Your task to perform on an android device: Empty the shopping cart on bestbuy.com. Add rayovac triple a to the cart on bestbuy.com Image 0: 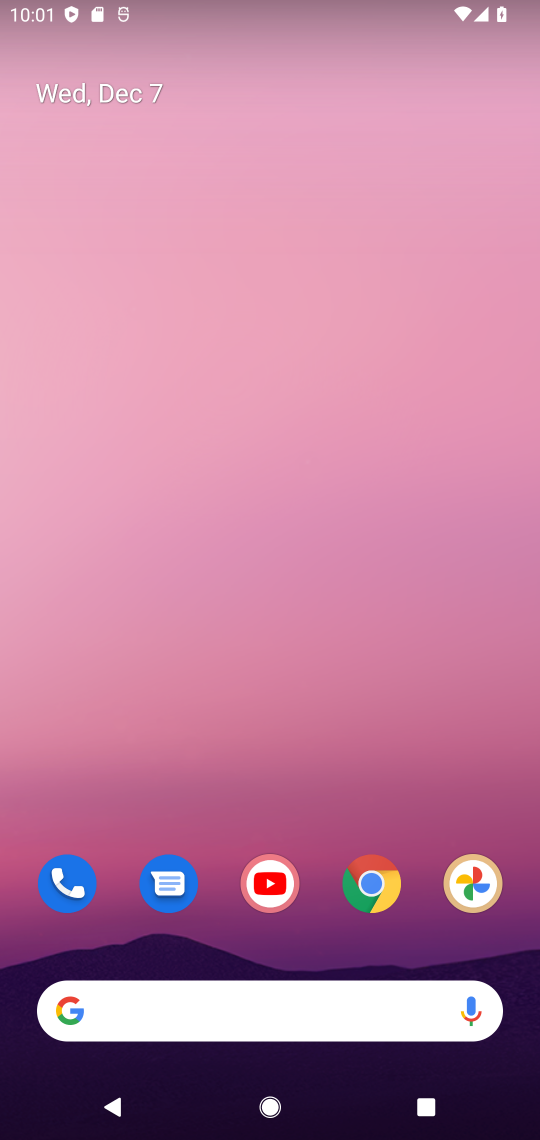
Step 0: drag from (264, 975) to (211, 145)
Your task to perform on an android device: Empty the shopping cart on bestbuy.com. Add rayovac triple a to the cart on bestbuy.com Image 1: 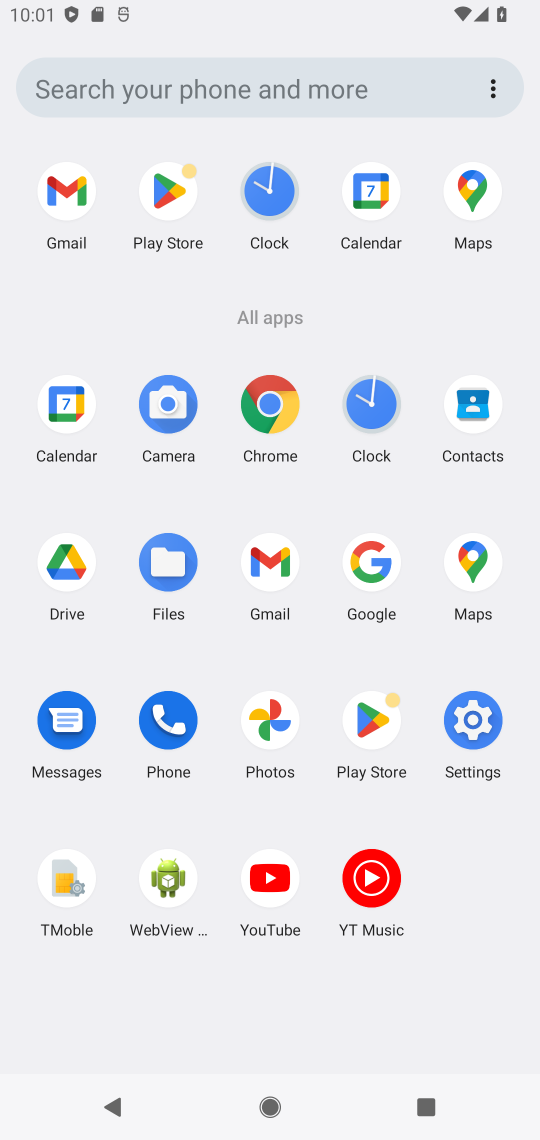
Step 1: click (381, 551)
Your task to perform on an android device: Empty the shopping cart on bestbuy.com. Add rayovac triple a to the cart on bestbuy.com Image 2: 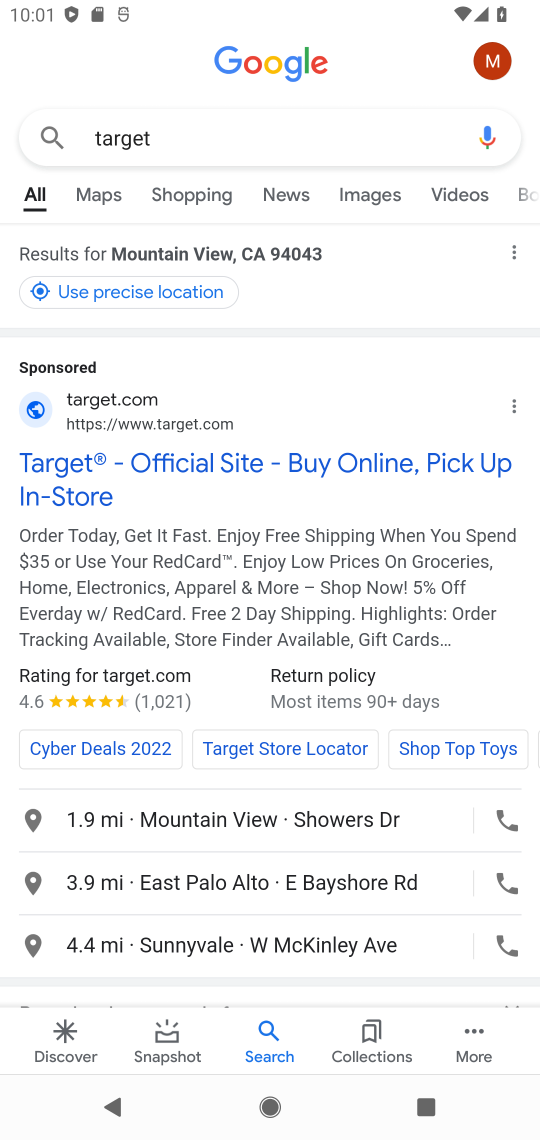
Step 2: click (211, 119)
Your task to perform on an android device: Empty the shopping cart on bestbuy.com. Add rayovac triple a to the cart on bestbuy.com Image 3: 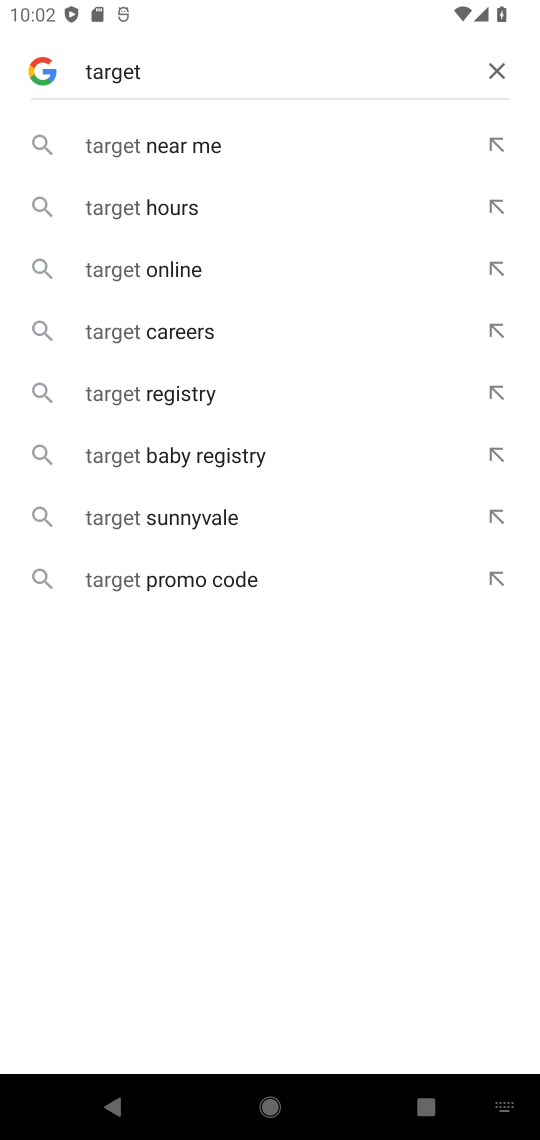
Step 3: click (495, 78)
Your task to perform on an android device: Empty the shopping cart on bestbuy.com. Add rayovac triple a to the cart on bestbuy.com Image 4: 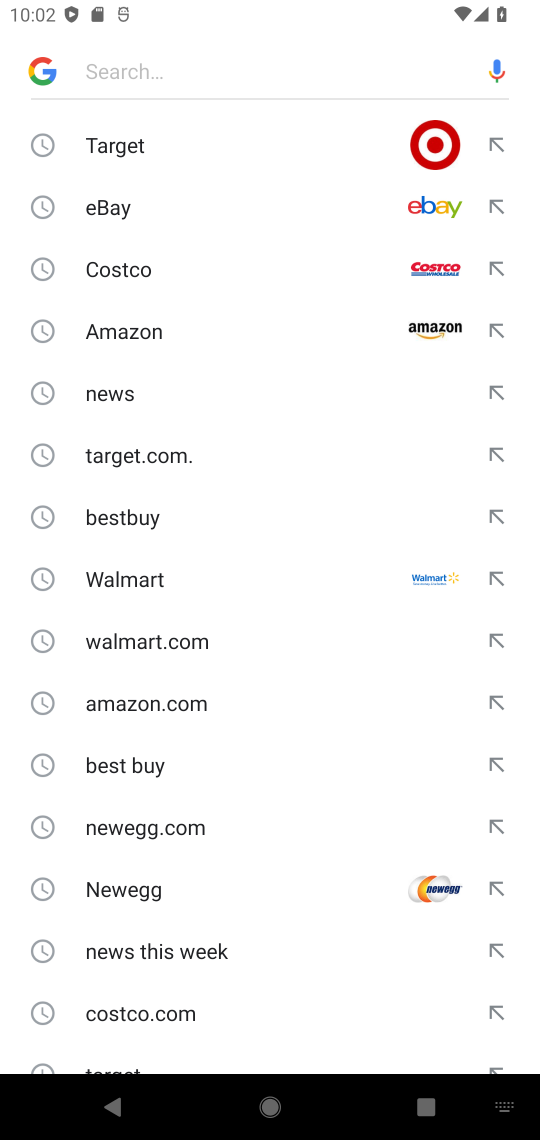
Step 4: click (119, 520)
Your task to perform on an android device: Empty the shopping cart on bestbuy.com. Add rayovac triple a to the cart on bestbuy.com Image 5: 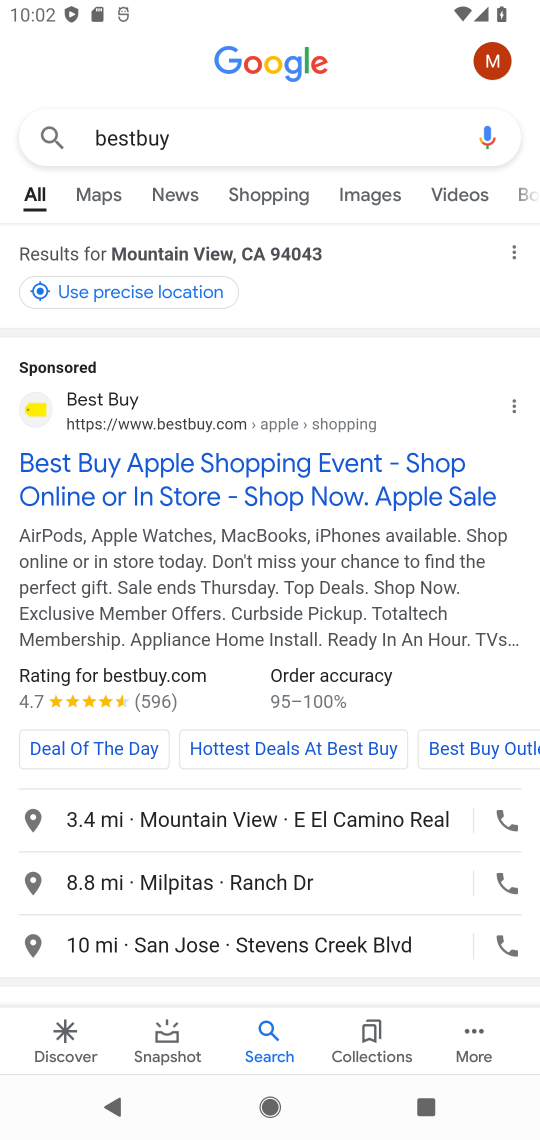
Step 5: click (186, 486)
Your task to perform on an android device: Empty the shopping cart on bestbuy.com. Add rayovac triple a to the cart on bestbuy.com Image 6: 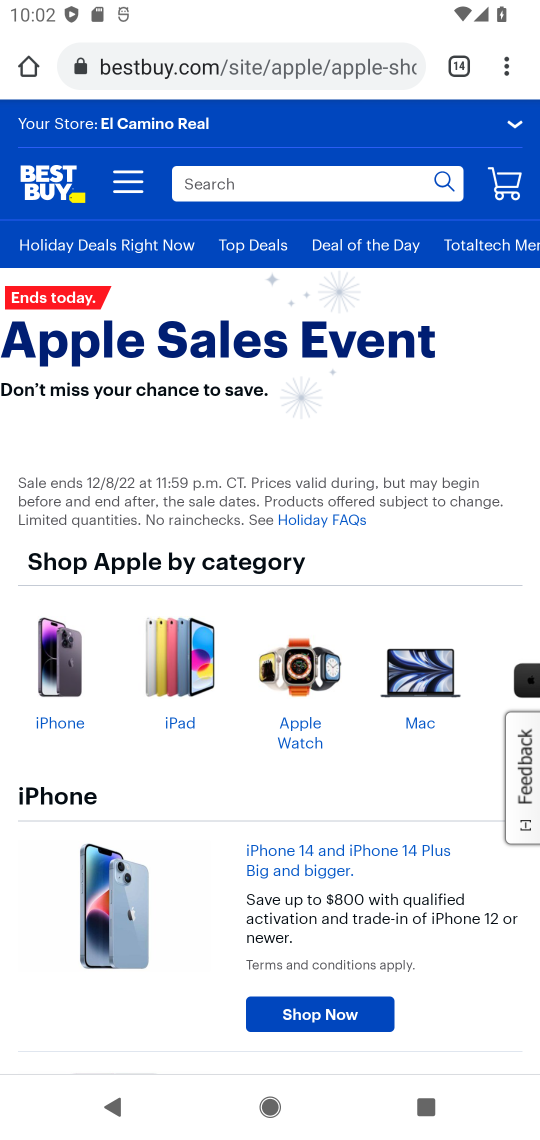
Step 6: click (195, 178)
Your task to perform on an android device: Empty the shopping cart on bestbuy.com. Add rayovac triple a to the cart on bestbuy.com Image 7: 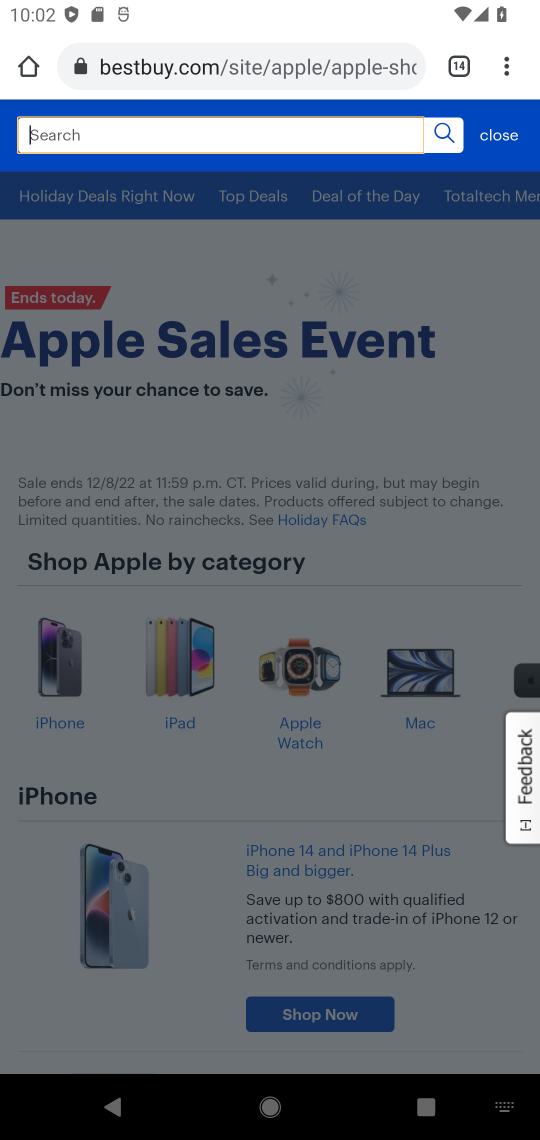
Step 7: type "rayovac triple a "
Your task to perform on an android device: Empty the shopping cart on bestbuy.com. Add rayovac triple a to the cart on bestbuy.com Image 8: 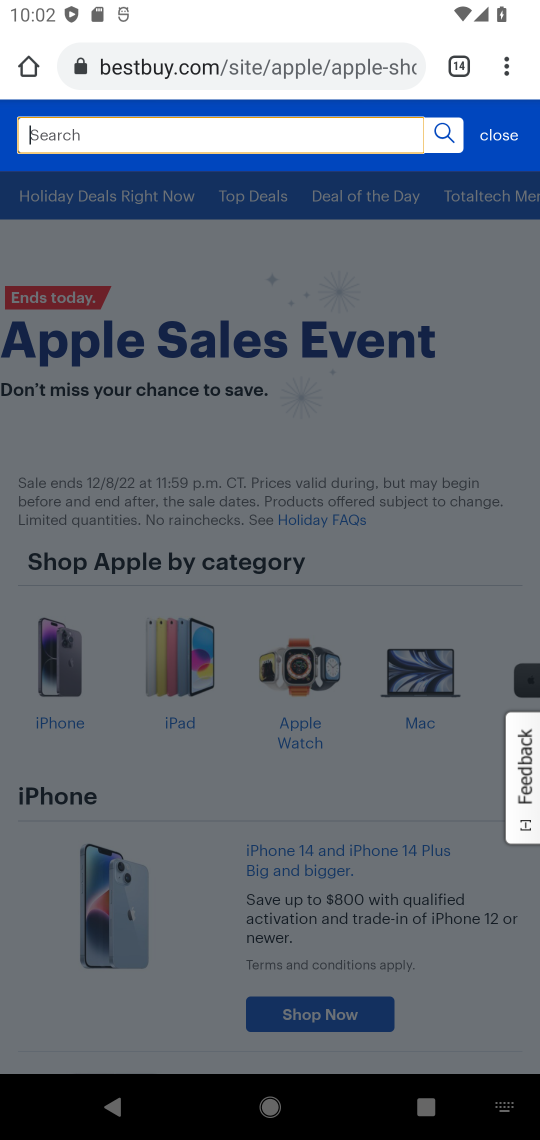
Step 8: click (445, 126)
Your task to perform on an android device: Empty the shopping cart on bestbuy.com. Add rayovac triple a to the cart on bestbuy.com Image 9: 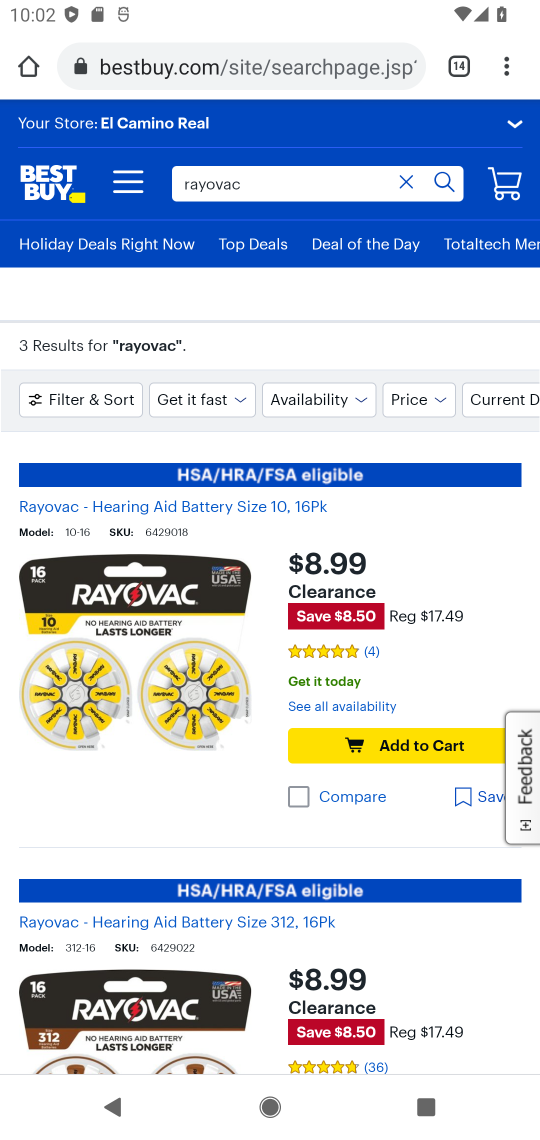
Step 9: click (404, 740)
Your task to perform on an android device: Empty the shopping cart on bestbuy.com. Add rayovac triple a to the cart on bestbuy.com Image 10: 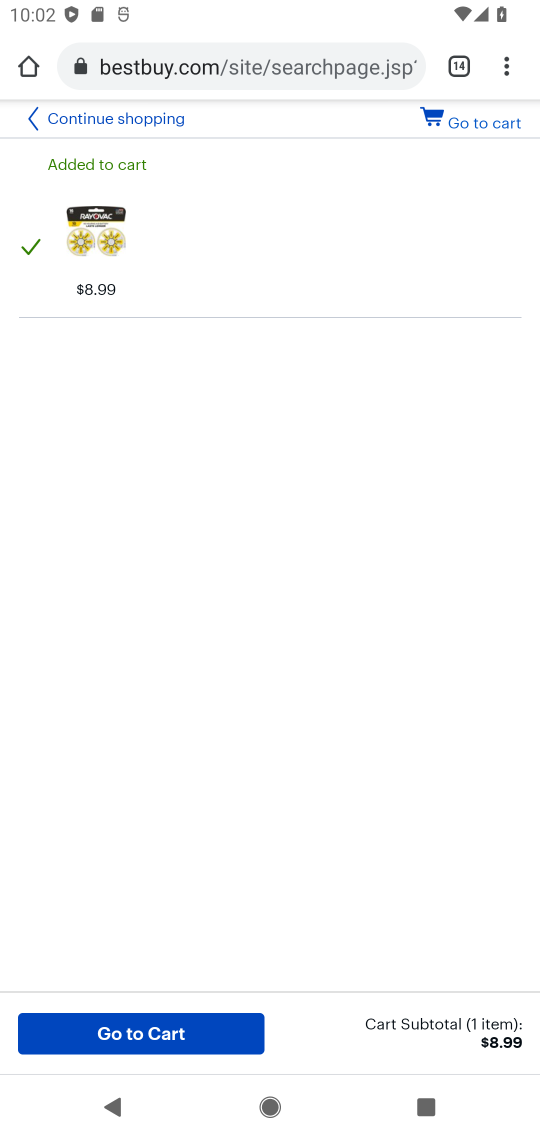
Step 10: click (175, 1042)
Your task to perform on an android device: Empty the shopping cart on bestbuy.com. Add rayovac triple a to the cart on bestbuy.com Image 11: 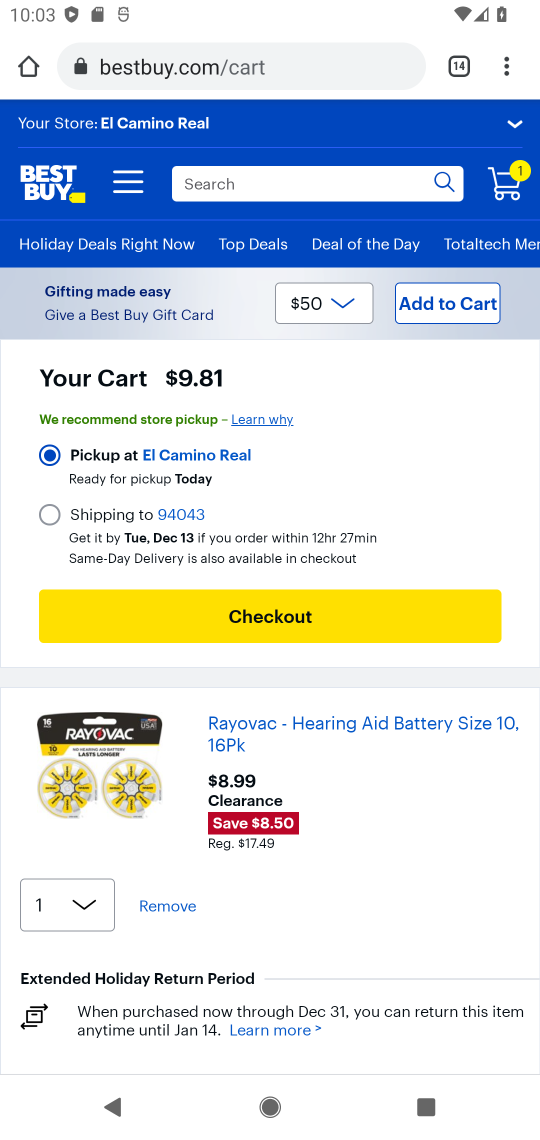
Step 11: task complete